Your task to perform on an android device: Open Yahoo.com Image 0: 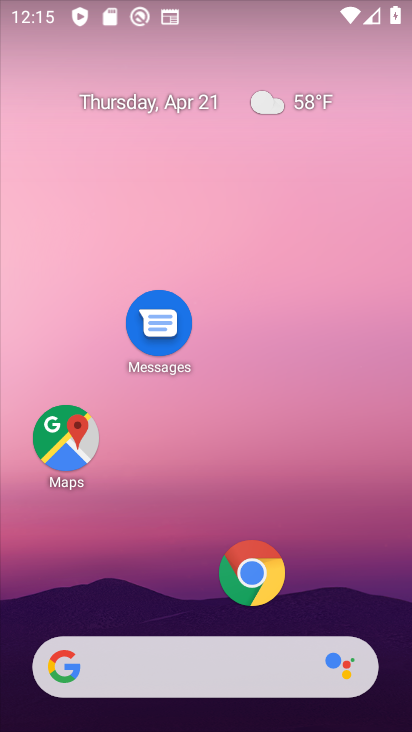
Step 0: click (256, 577)
Your task to perform on an android device: Open Yahoo.com Image 1: 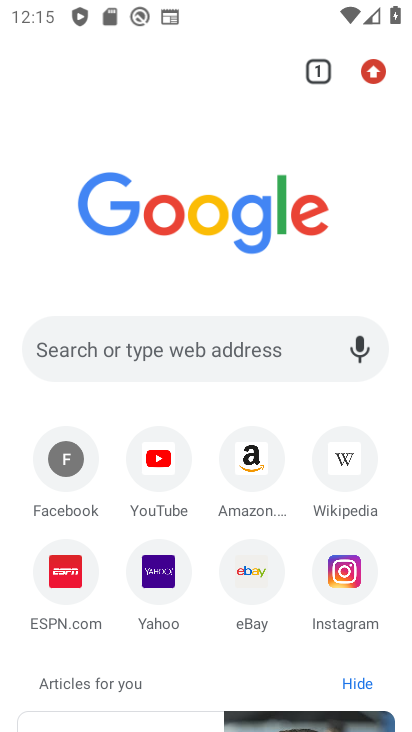
Step 1: click (161, 575)
Your task to perform on an android device: Open Yahoo.com Image 2: 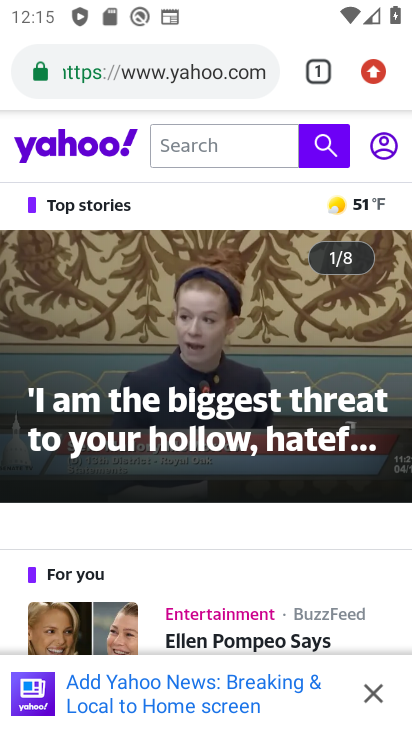
Step 2: task complete